Your task to perform on an android device: Open Google Chrome and open the bookmarks view Image 0: 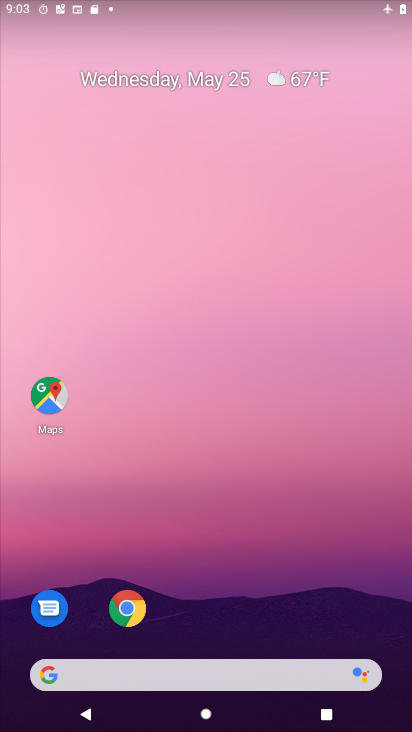
Step 0: click (128, 605)
Your task to perform on an android device: Open Google Chrome and open the bookmarks view Image 1: 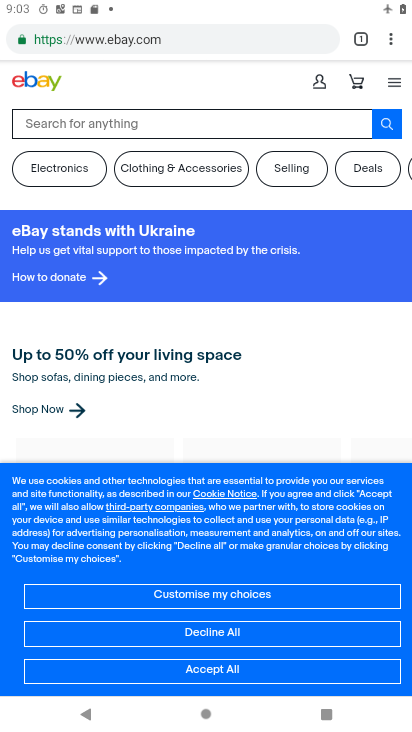
Step 1: click (390, 40)
Your task to perform on an android device: Open Google Chrome and open the bookmarks view Image 2: 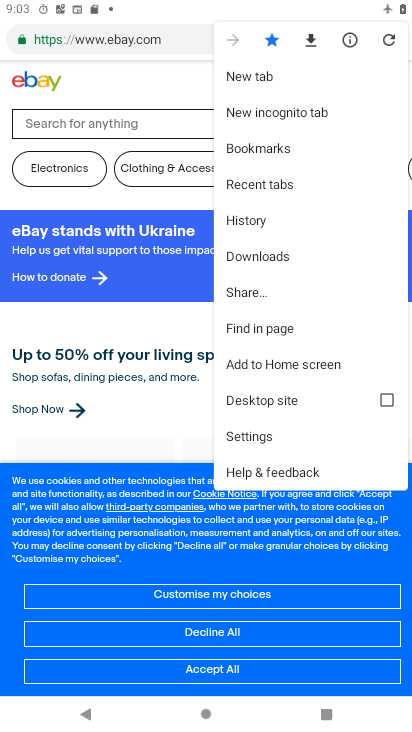
Step 2: click (256, 144)
Your task to perform on an android device: Open Google Chrome and open the bookmarks view Image 3: 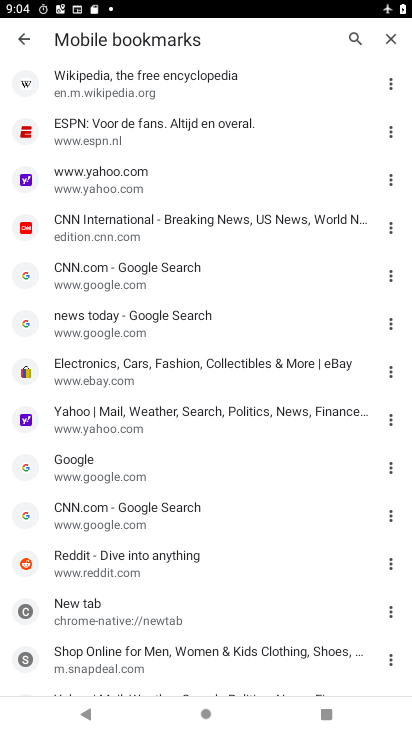
Step 3: task complete